Your task to perform on an android device: open the mobile data screen to see how much data has been used Image 0: 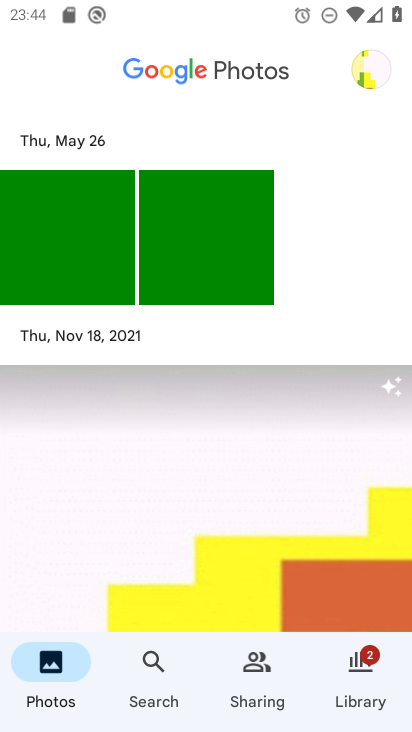
Step 0: press home button
Your task to perform on an android device: open the mobile data screen to see how much data has been used Image 1: 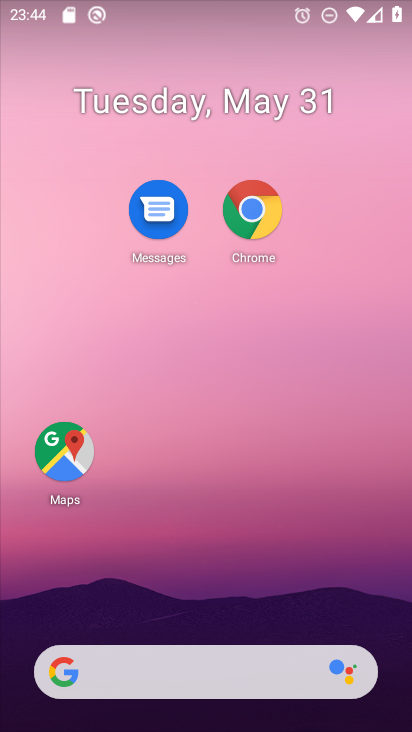
Step 1: drag from (207, 625) to (213, 51)
Your task to perform on an android device: open the mobile data screen to see how much data has been used Image 2: 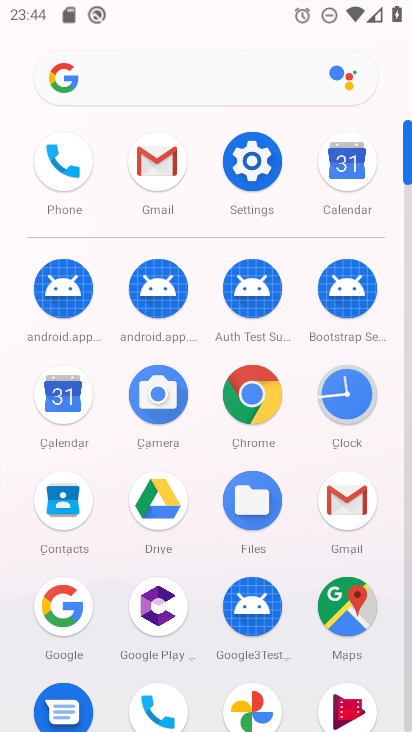
Step 2: click (250, 151)
Your task to perform on an android device: open the mobile data screen to see how much data has been used Image 3: 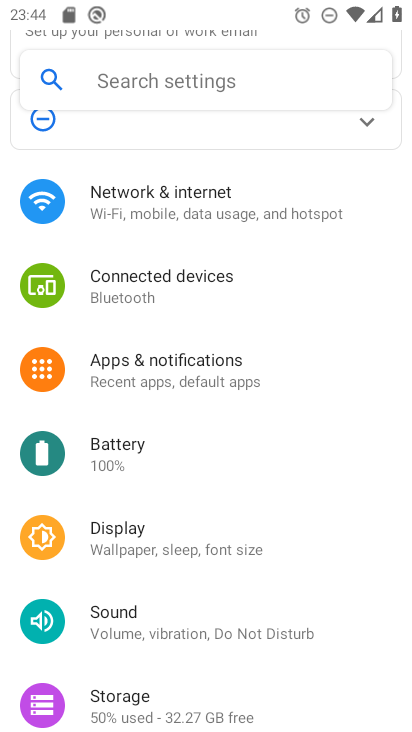
Step 3: click (199, 210)
Your task to perform on an android device: open the mobile data screen to see how much data has been used Image 4: 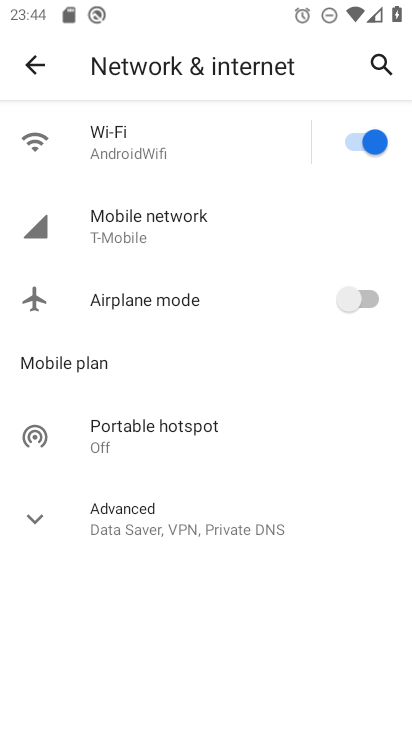
Step 4: click (166, 224)
Your task to perform on an android device: open the mobile data screen to see how much data has been used Image 5: 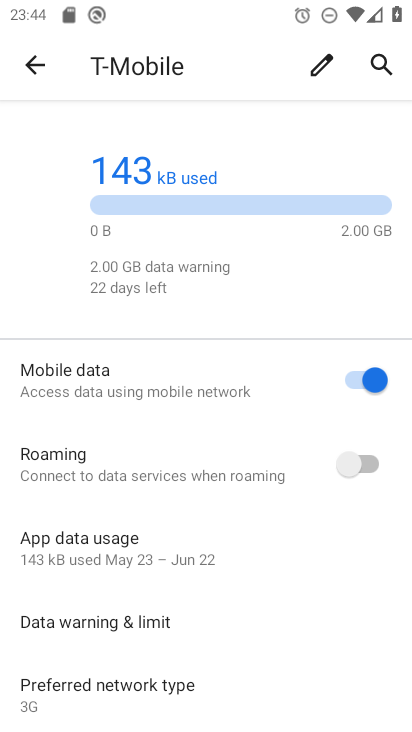
Step 5: click (162, 544)
Your task to perform on an android device: open the mobile data screen to see how much data has been used Image 6: 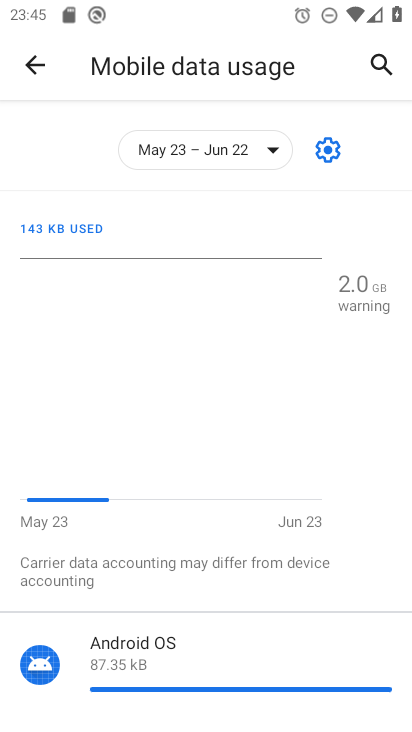
Step 6: task complete